Your task to perform on an android device: Open internet settings Image 0: 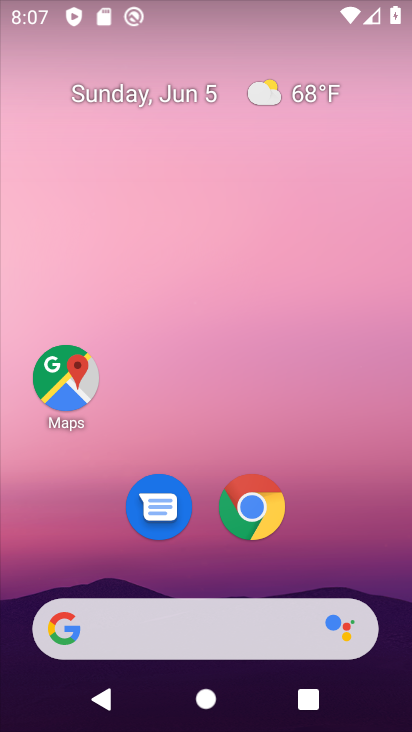
Step 0: drag from (205, 582) to (241, 260)
Your task to perform on an android device: Open internet settings Image 1: 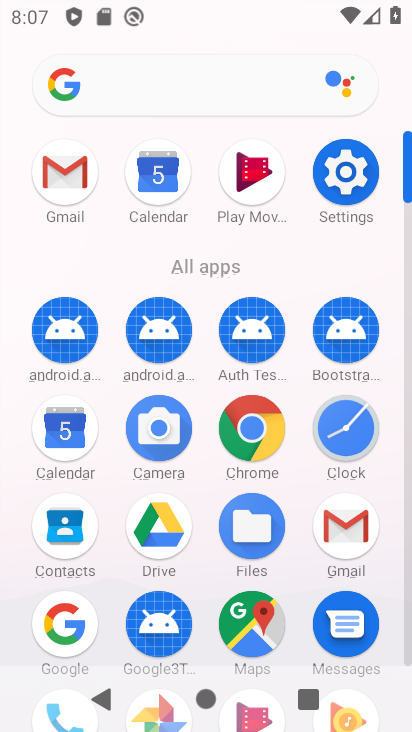
Step 1: click (347, 189)
Your task to perform on an android device: Open internet settings Image 2: 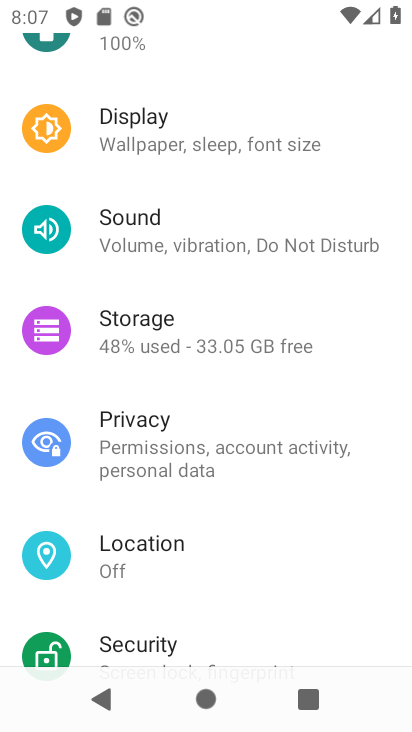
Step 2: drag from (298, 207) to (246, 669)
Your task to perform on an android device: Open internet settings Image 3: 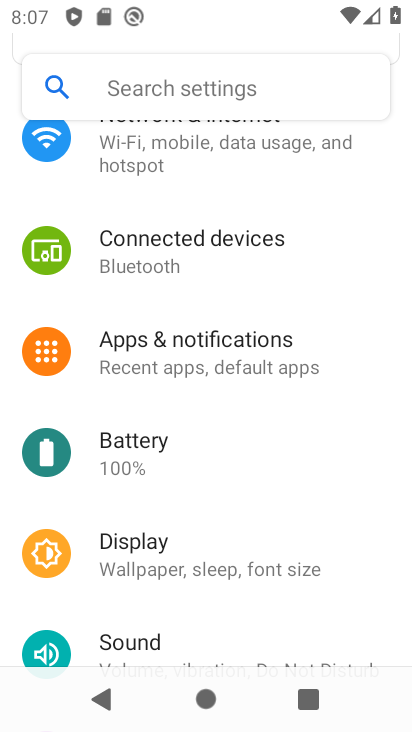
Step 3: drag from (290, 262) to (258, 709)
Your task to perform on an android device: Open internet settings Image 4: 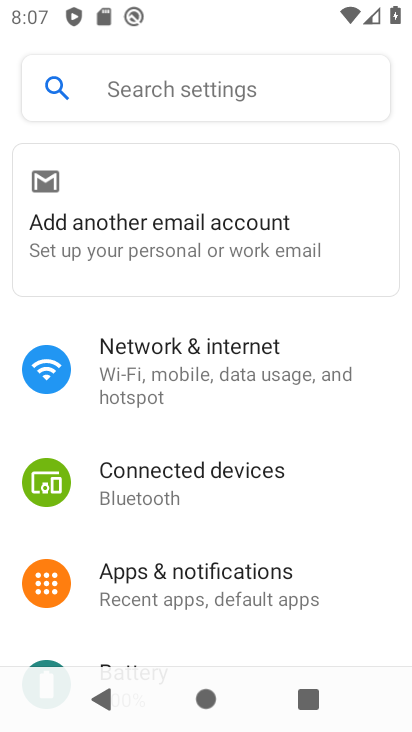
Step 4: click (235, 367)
Your task to perform on an android device: Open internet settings Image 5: 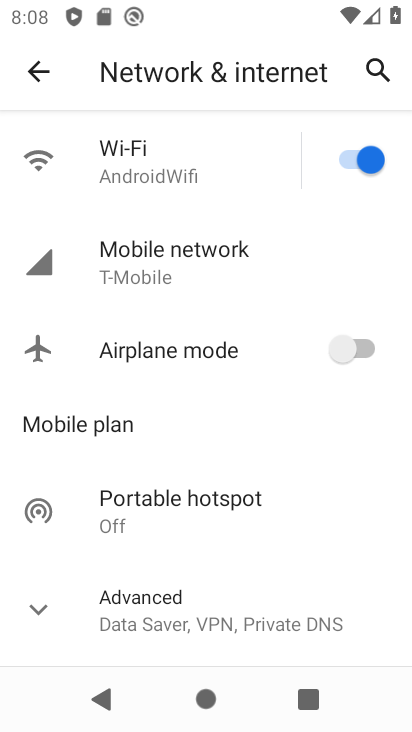
Step 5: task complete